Your task to perform on an android device: turn pop-ups off in chrome Image 0: 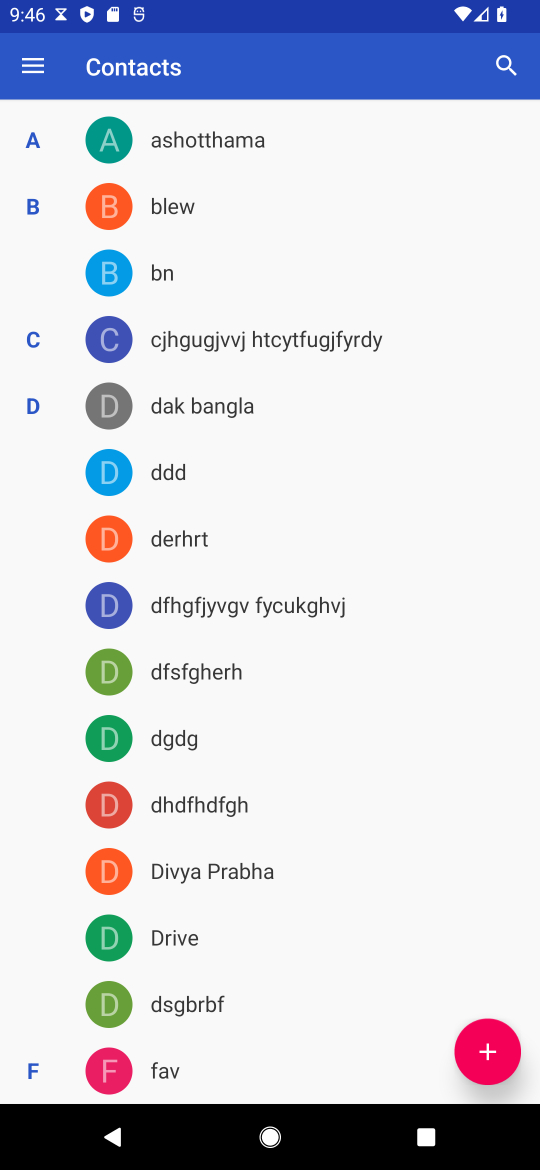
Step 0: press home button
Your task to perform on an android device: turn pop-ups off in chrome Image 1: 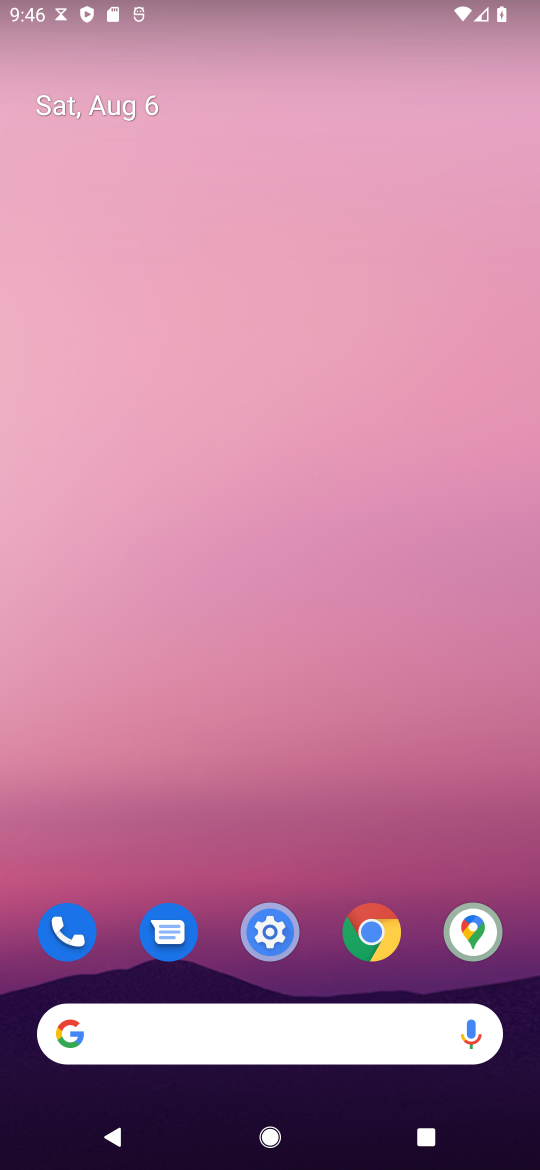
Step 1: click (370, 931)
Your task to perform on an android device: turn pop-ups off in chrome Image 2: 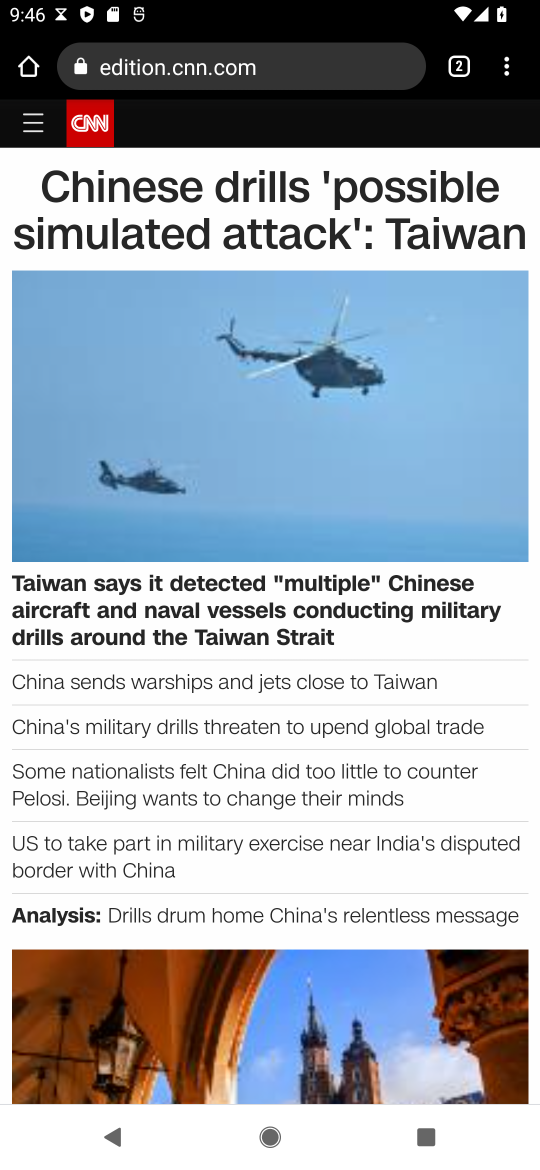
Step 2: click (508, 68)
Your task to perform on an android device: turn pop-ups off in chrome Image 3: 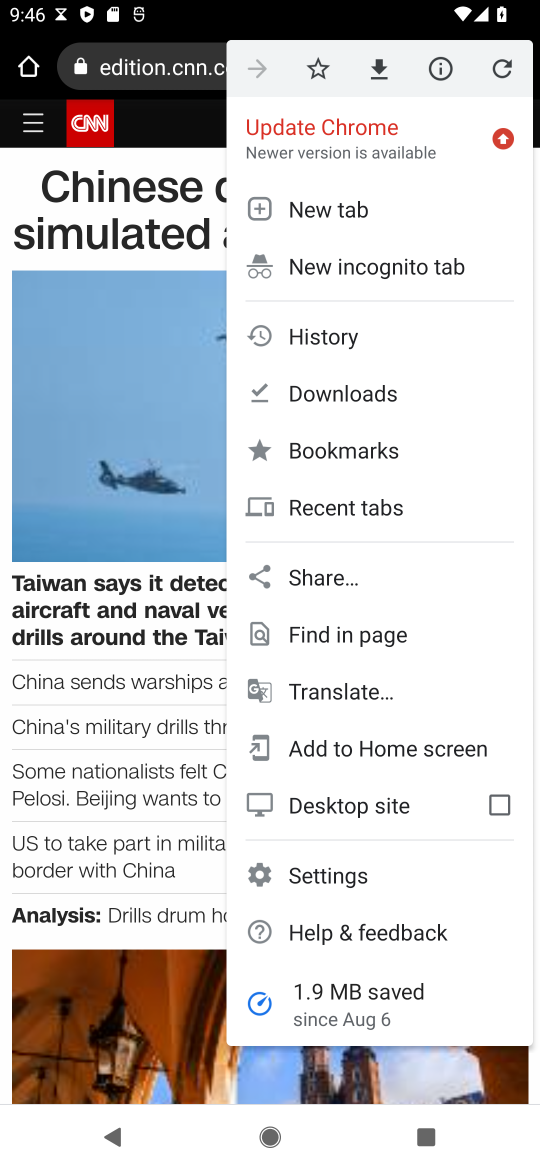
Step 3: click (352, 872)
Your task to perform on an android device: turn pop-ups off in chrome Image 4: 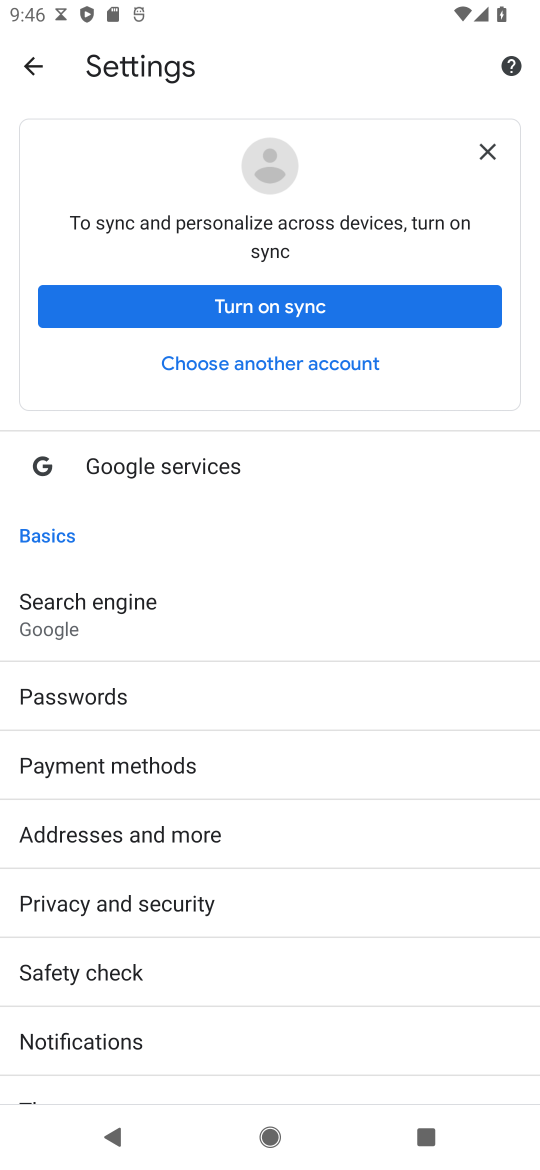
Step 4: drag from (152, 1001) to (294, 725)
Your task to perform on an android device: turn pop-ups off in chrome Image 5: 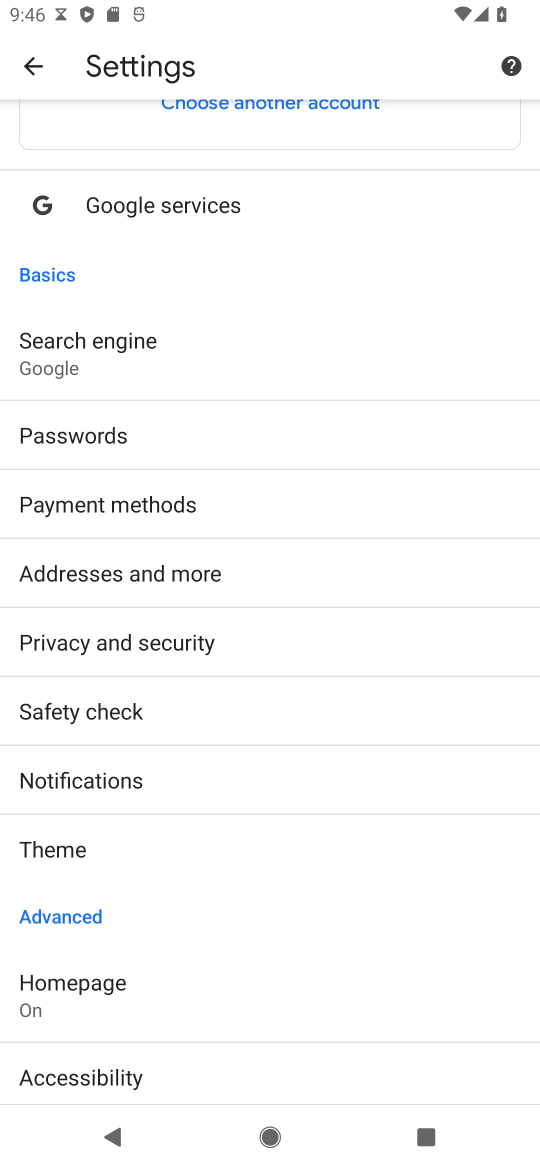
Step 5: drag from (192, 853) to (328, 612)
Your task to perform on an android device: turn pop-ups off in chrome Image 6: 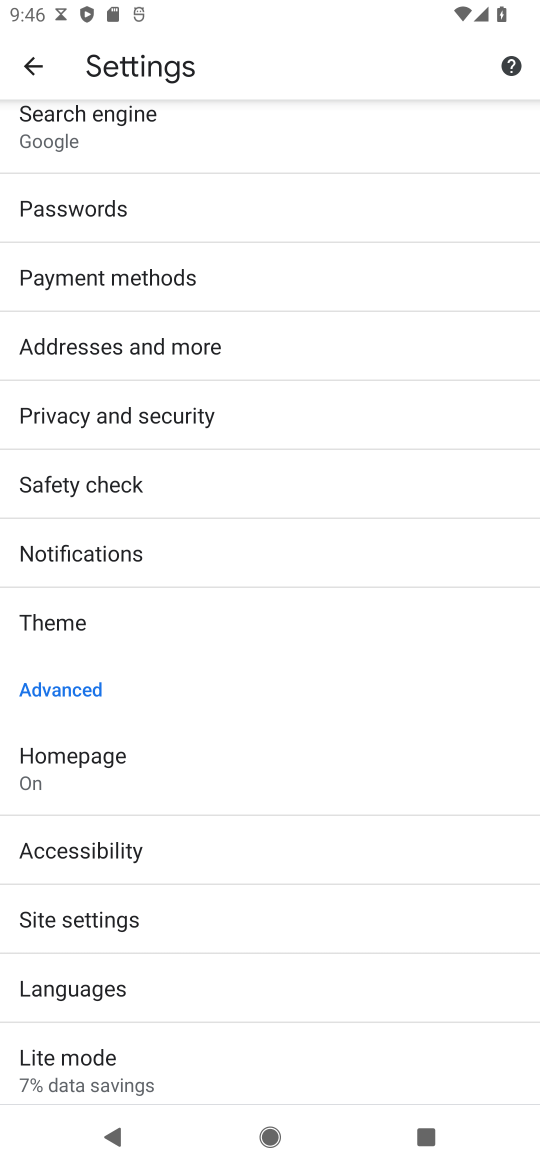
Step 6: click (124, 919)
Your task to perform on an android device: turn pop-ups off in chrome Image 7: 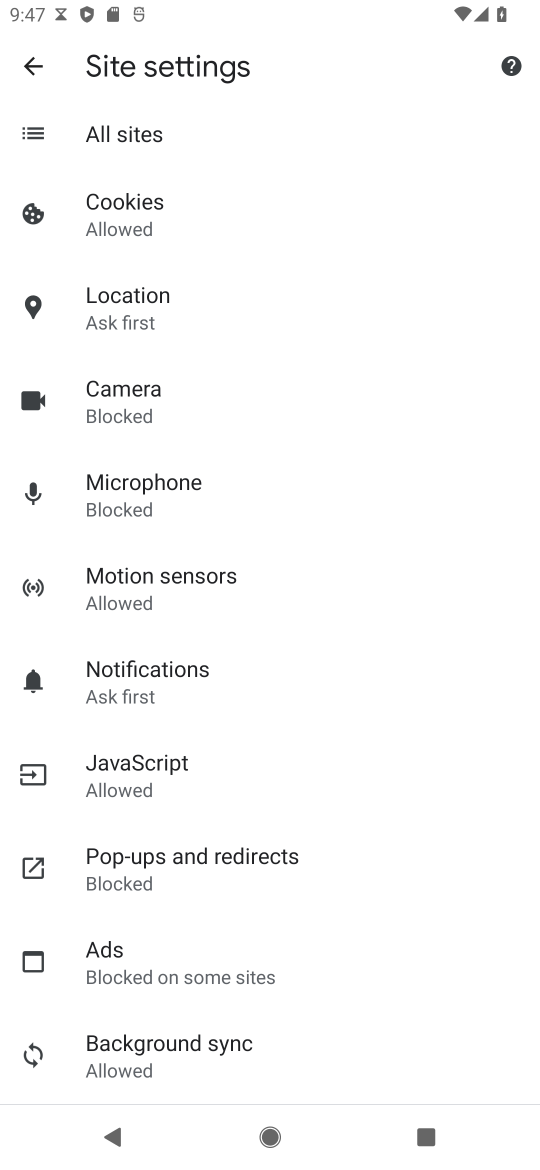
Step 7: click (144, 857)
Your task to perform on an android device: turn pop-ups off in chrome Image 8: 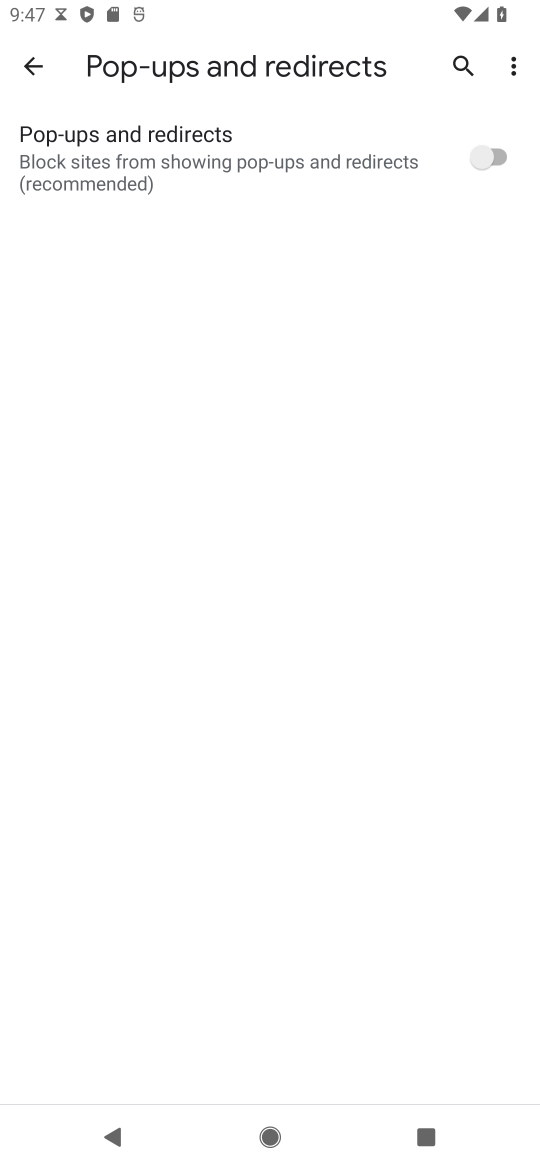
Step 8: task complete